Your task to perform on an android device: Open Google Chrome and click the shortcut for Amazon.com Image 0: 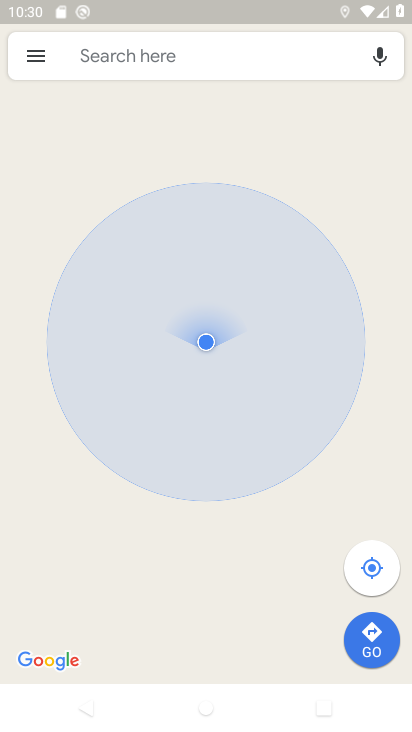
Step 0: click (277, 282)
Your task to perform on an android device: Open Google Chrome and click the shortcut for Amazon.com Image 1: 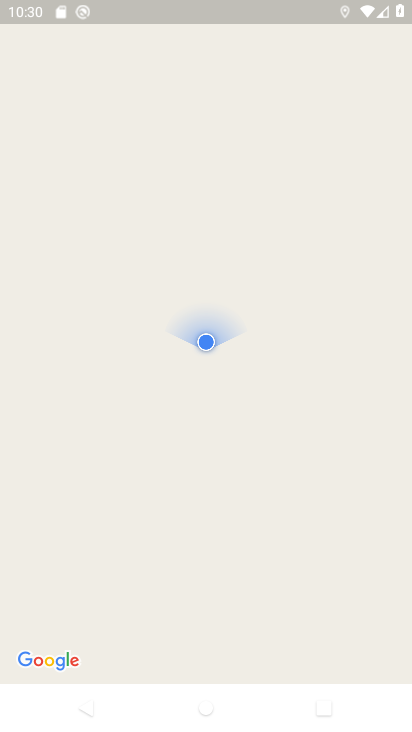
Step 1: press home button
Your task to perform on an android device: Open Google Chrome and click the shortcut for Amazon.com Image 2: 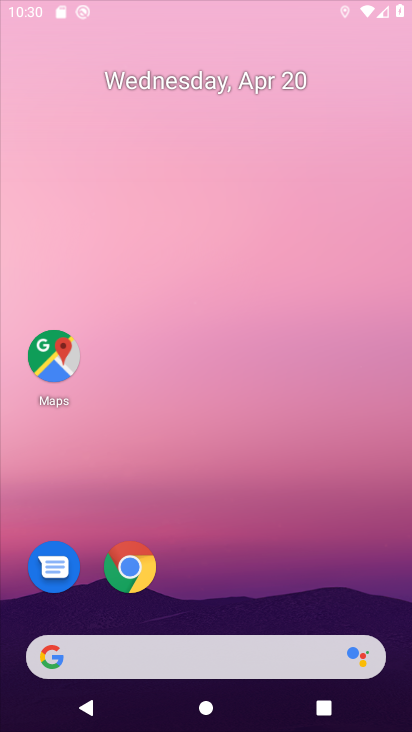
Step 2: click (214, 392)
Your task to perform on an android device: Open Google Chrome and click the shortcut for Amazon.com Image 3: 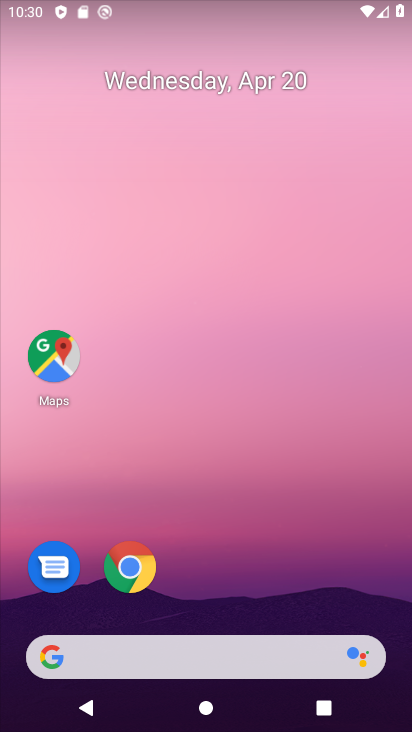
Step 3: click (250, 287)
Your task to perform on an android device: Open Google Chrome and click the shortcut for Amazon.com Image 4: 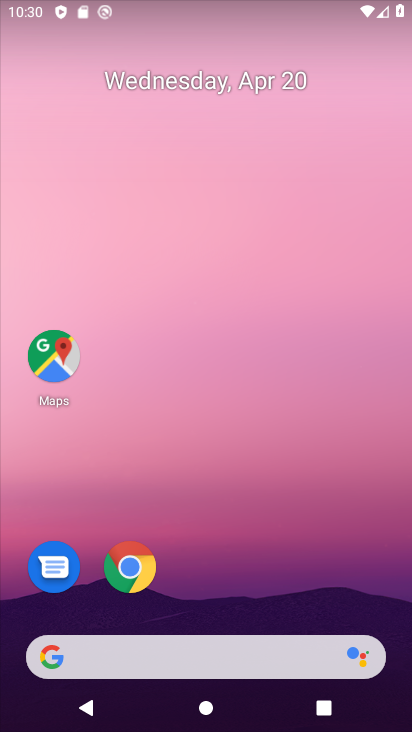
Step 4: drag from (225, 607) to (239, 294)
Your task to perform on an android device: Open Google Chrome and click the shortcut for Amazon.com Image 5: 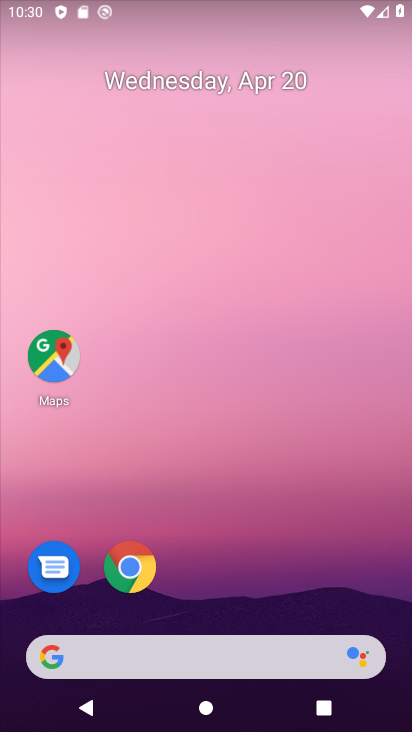
Step 5: drag from (233, 214) to (253, 166)
Your task to perform on an android device: Open Google Chrome and click the shortcut for Amazon.com Image 6: 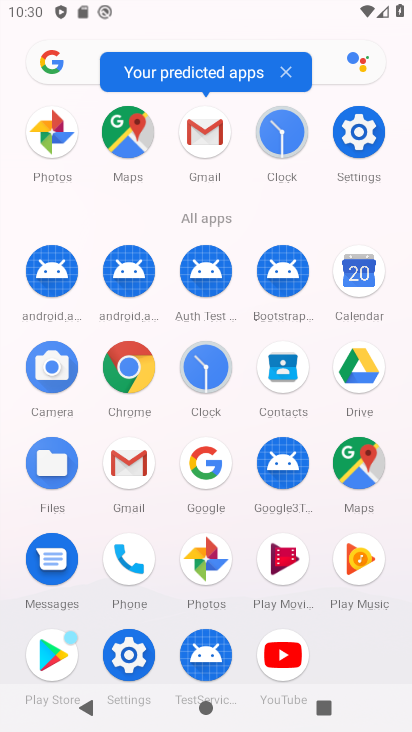
Step 6: click (125, 356)
Your task to perform on an android device: Open Google Chrome and click the shortcut for Amazon.com Image 7: 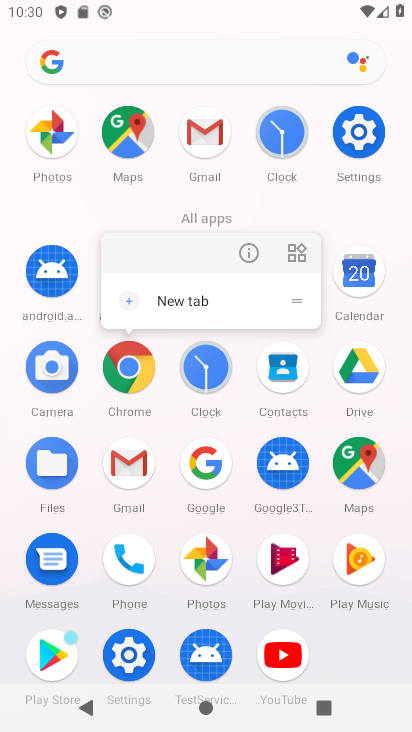
Step 7: click (127, 356)
Your task to perform on an android device: Open Google Chrome and click the shortcut for Amazon.com Image 8: 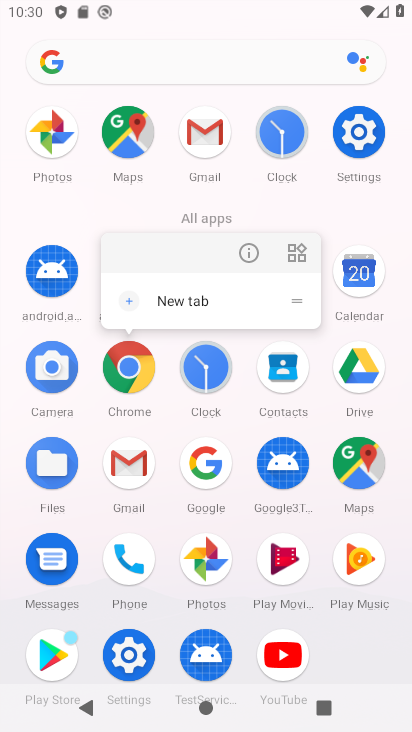
Step 8: click (127, 356)
Your task to perform on an android device: Open Google Chrome and click the shortcut for Amazon.com Image 9: 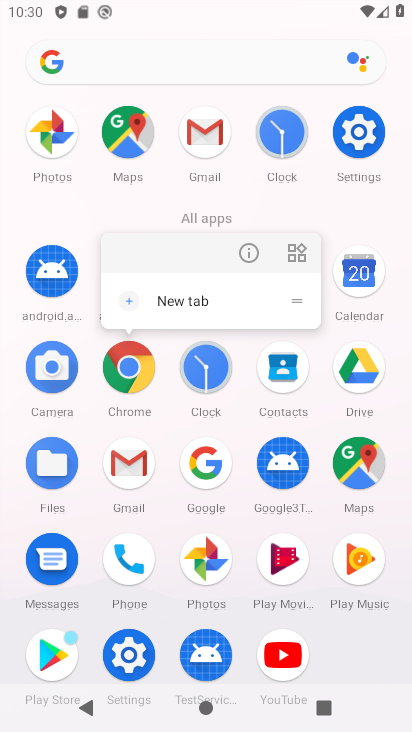
Step 9: click (128, 370)
Your task to perform on an android device: Open Google Chrome and click the shortcut for Amazon.com Image 10: 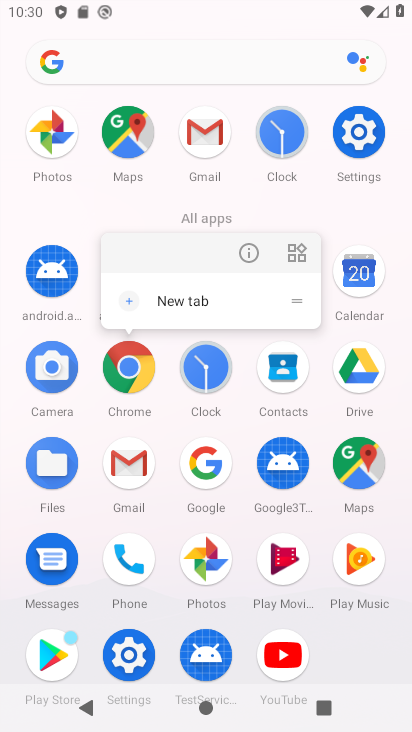
Step 10: click (128, 370)
Your task to perform on an android device: Open Google Chrome and click the shortcut for Amazon.com Image 11: 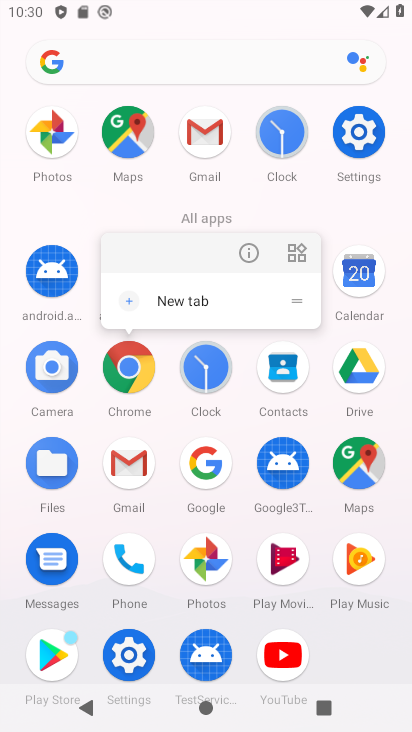
Step 11: click (128, 370)
Your task to perform on an android device: Open Google Chrome and click the shortcut for Amazon.com Image 12: 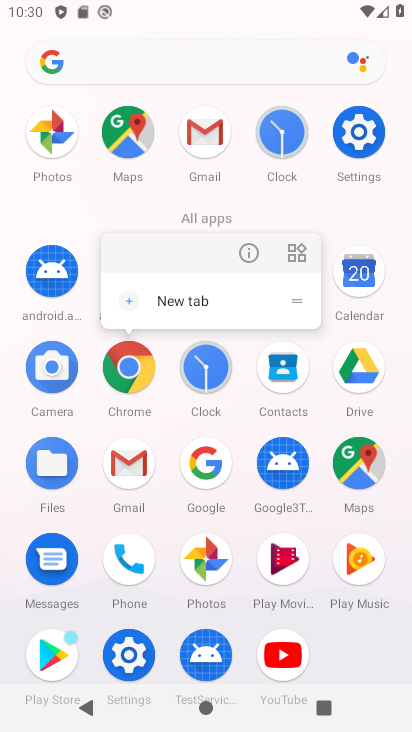
Step 12: click (120, 365)
Your task to perform on an android device: Open Google Chrome and click the shortcut for Amazon.com Image 13: 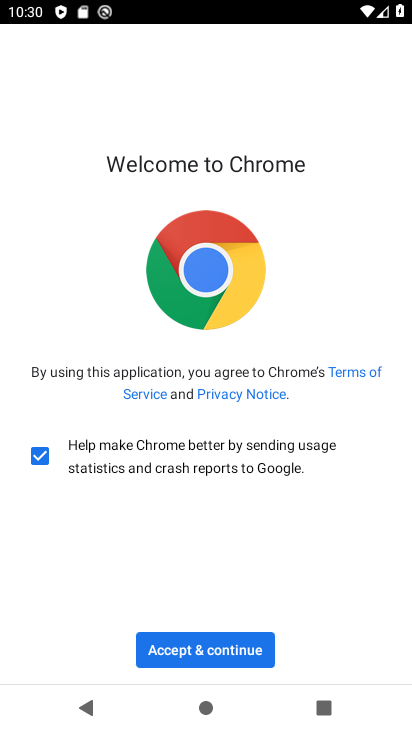
Step 13: click (219, 642)
Your task to perform on an android device: Open Google Chrome and click the shortcut for Amazon.com Image 14: 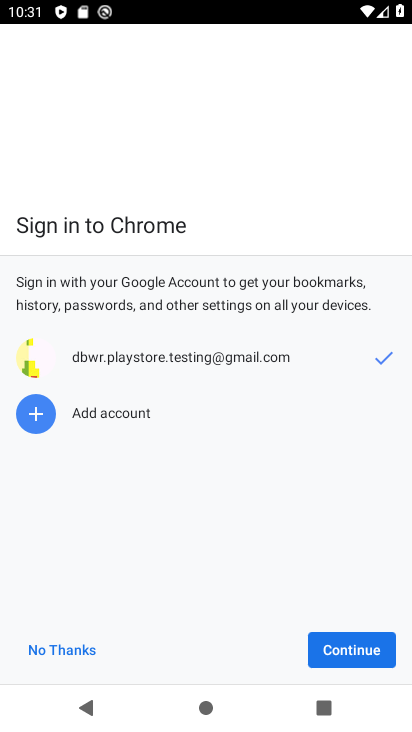
Step 14: click (338, 659)
Your task to perform on an android device: Open Google Chrome and click the shortcut for Amazon.com Image 15: 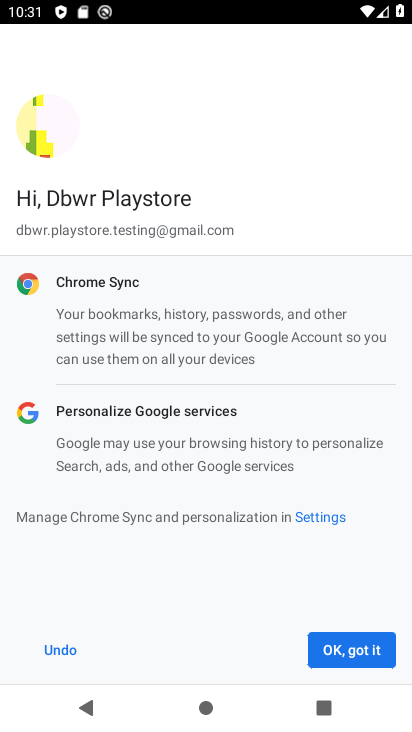
Step 15: click (341, 644)
Your task to perform on an android device: Open Google Chrome and click the shortcut for Amazon.com Image 16: 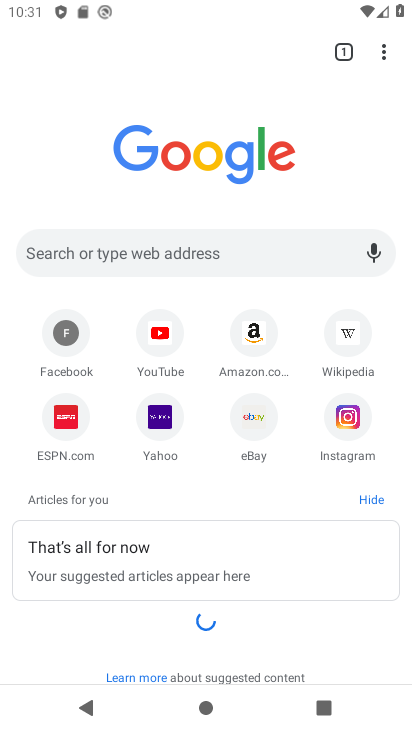
Step 16: click (249, 338)
Your task to perform on an android device: Open Google Chrome and click the shortcut for Amazon.com Image 17: 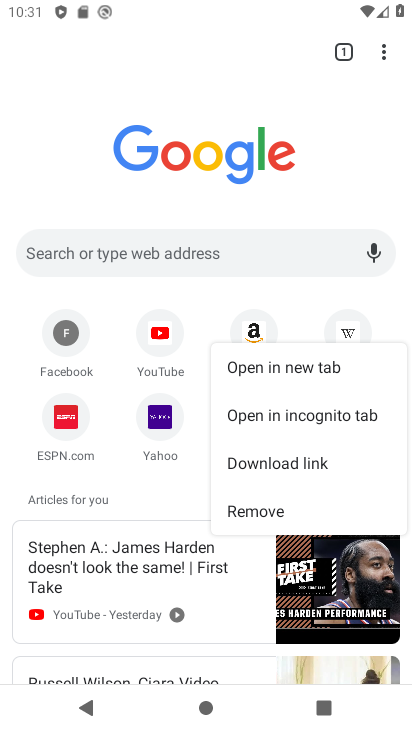
Step 17: click (248, 336)
Your task to perform on an android device: Open Google Chrome and click the shortcut for Amazon.com Image 18: 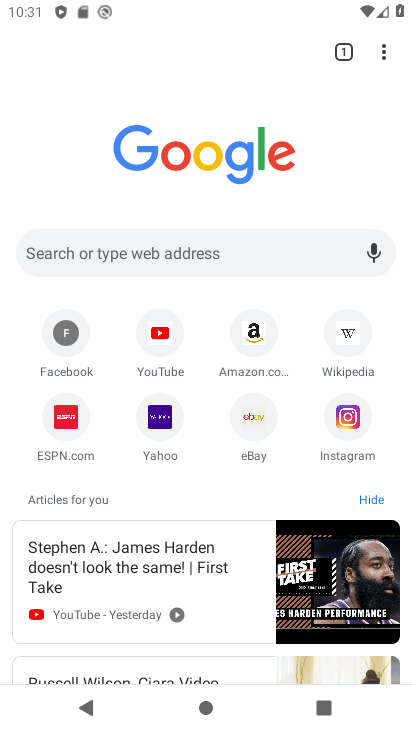
Step 18: click (258, 331)
Your task to perform on an android device: Open Google Chrome and click the shortcut for Amazon.com Image 19: 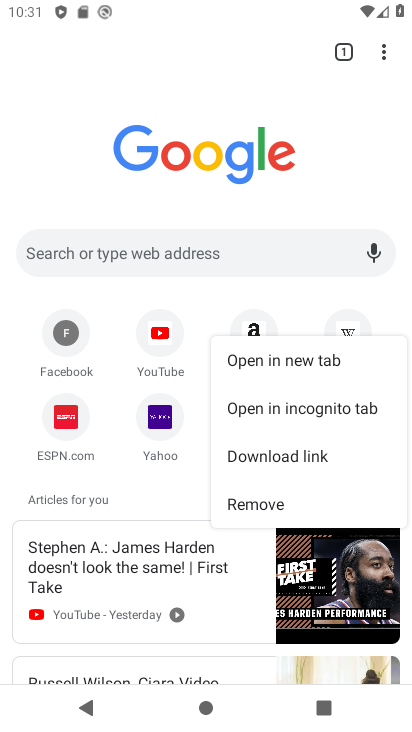
Step 19: click (258, 331)
Your task to perform on an android device: Open Google Chrome and click the shortcut for Amazon.com Image 20: 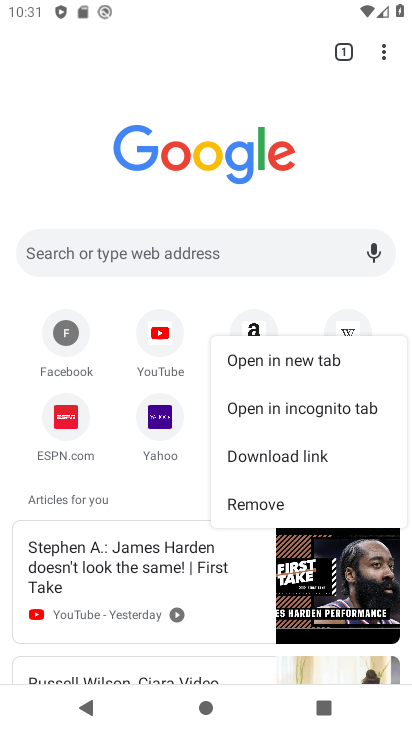
Step 20: click (250, 328)
Your task to perform on an android device: Open Google Chrome and click the shortcut for Amazon.com Image 21: 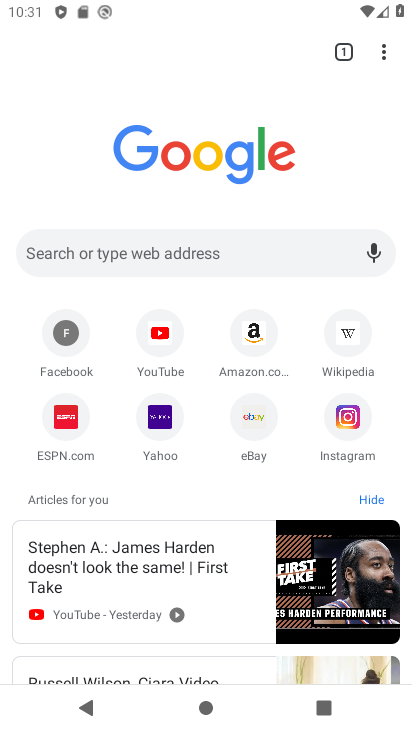
Step 21: click (250, 328)
Your task to perform on an android device: Open Google Chrome and click the shortcut for Amazon.com Image 22: 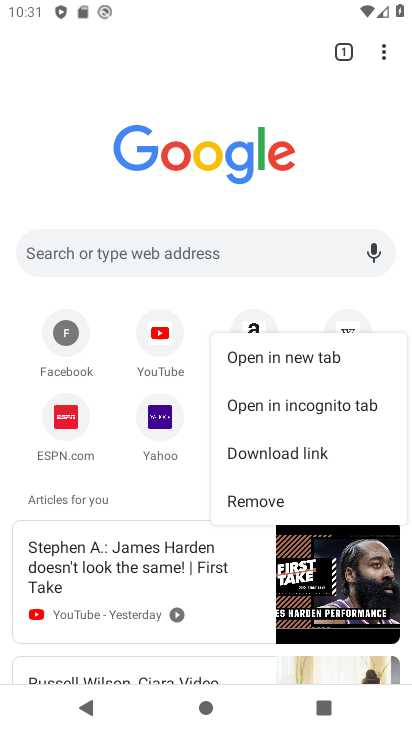
Step 22: click (250, 328)
Your task to perform on an android device: Open Google Chrome and click the shortcut for Amazon.com Image 23: 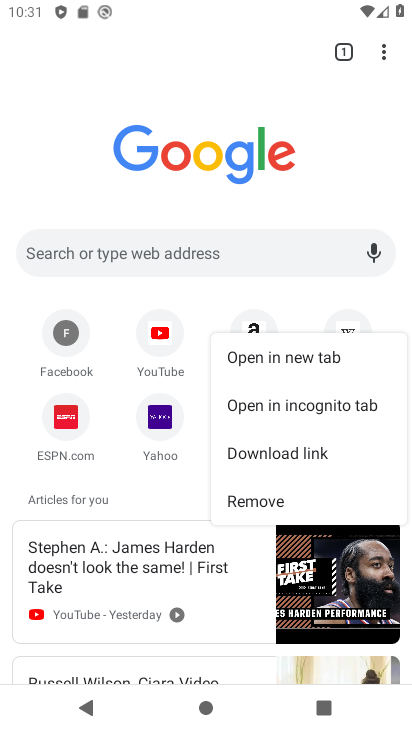
Step 23: click (250, 328)
Your task to perform on an android device: Open Google Chrome and click the shortcut for Amazon.com Image 24: 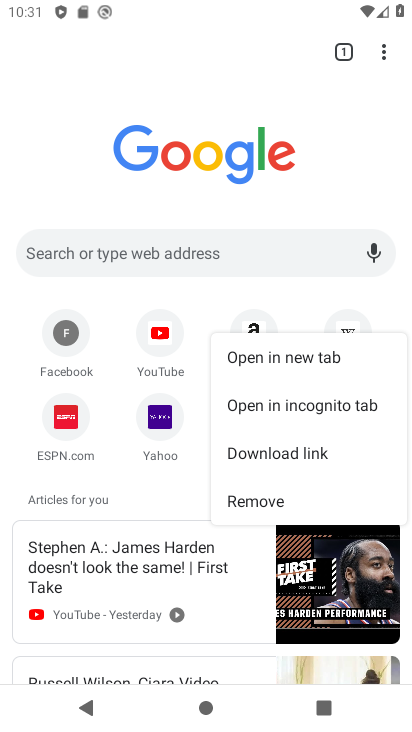
Step 24: click (250, 322)
Your task to perform on an android device: Open Google Chrome and click the shortcut for Amazon.com Image 25: 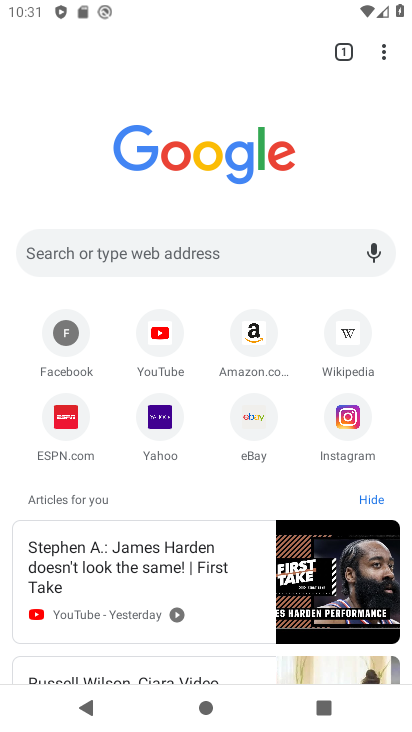
Step 25: click (250, 322)
Your task to perform on an android device: Open Google Chrome and click the shortcut for Amazon.com Image 26: 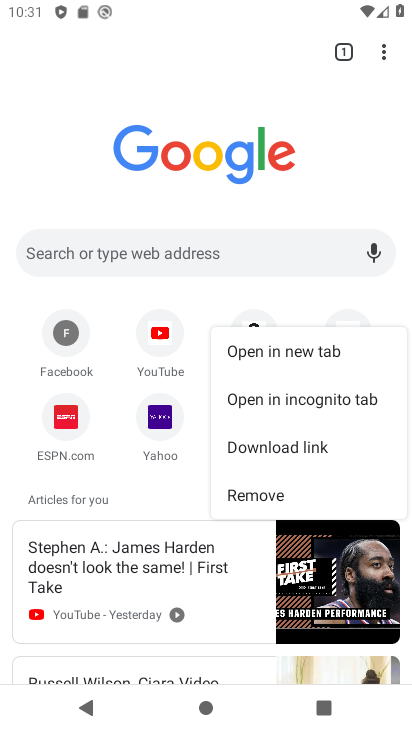
Step 26: click (250, 322)
Your task to perform on an android device: Open Google Chrome and click the shortcut for Amazon.com Image 27: 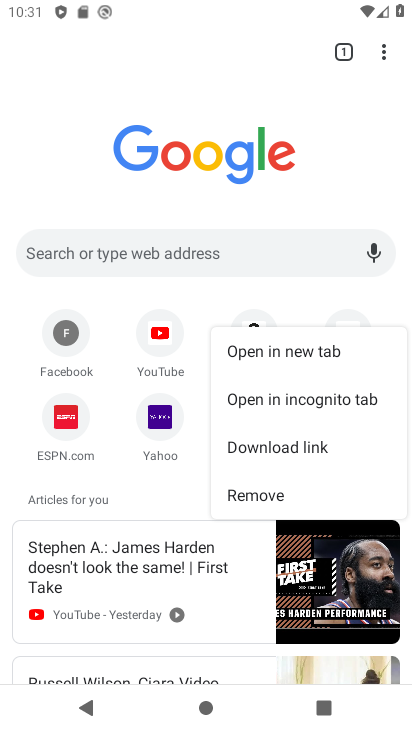
Step 27: click (250, 311)
Your task to perform on an android device: Open Google Chrome and click the shortcut for Amazon.com Image 28: 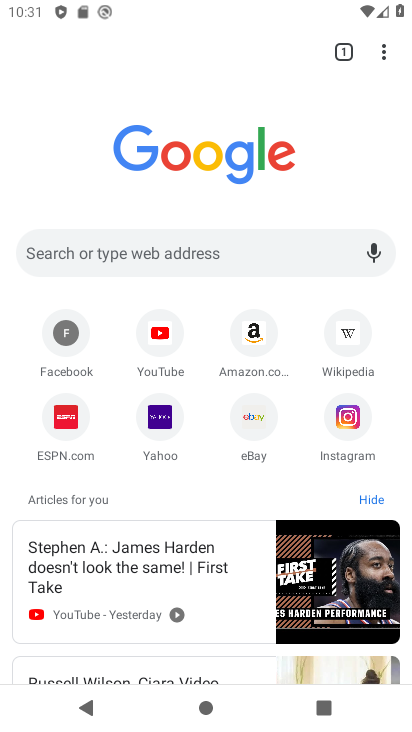
Step 28: click (250, 311)
Your task to perform on an android device: Open Google Chrome and click the shortcut for Amazon.com Image 29: 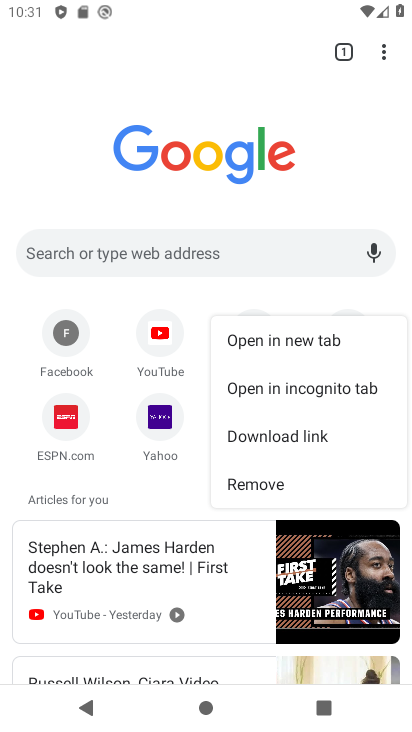
Step 29: click (262, 340)
Your task to perform on an android device: Open Google Chrome and click the shortcut for Amazon.com Image 30: 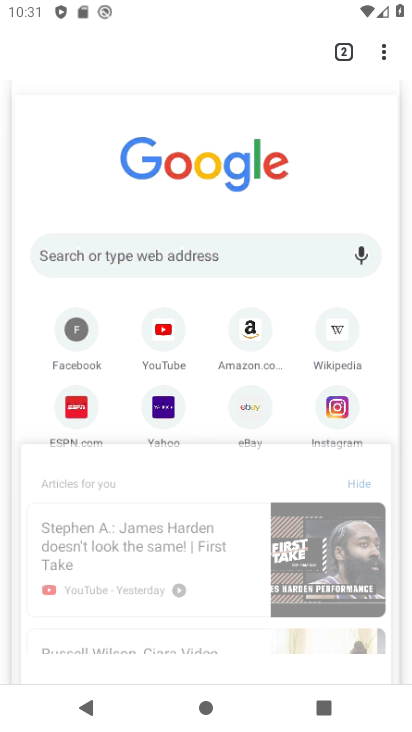
Step 30: click (262, 340)
Your task to perform on an android device: Open Google Chrome and click the shortcut for Amazon.com Image 31: 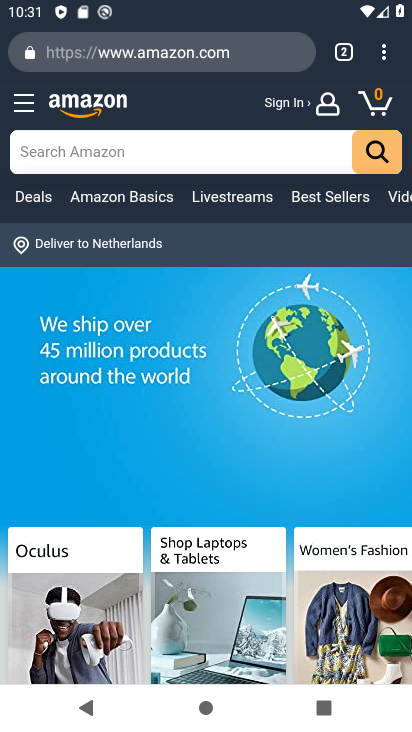
Step 31: task complete